Your task to perform on an android device: Search for the best Mexican restaurants Image 0: 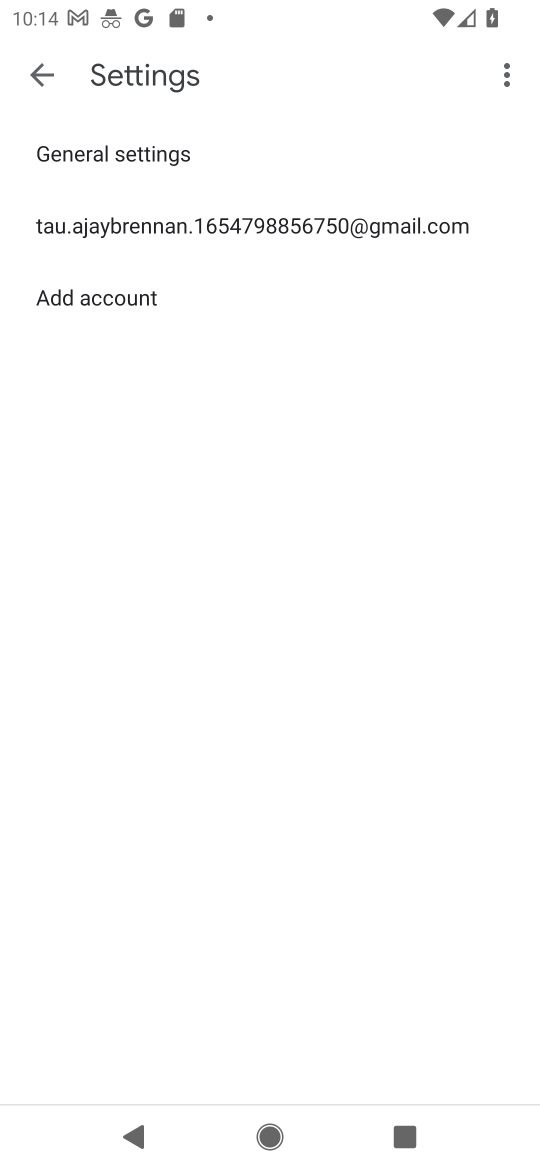
Step 0: press home button
Your task to perform on an android device: Search for the best Mexican restaurants Image 1: 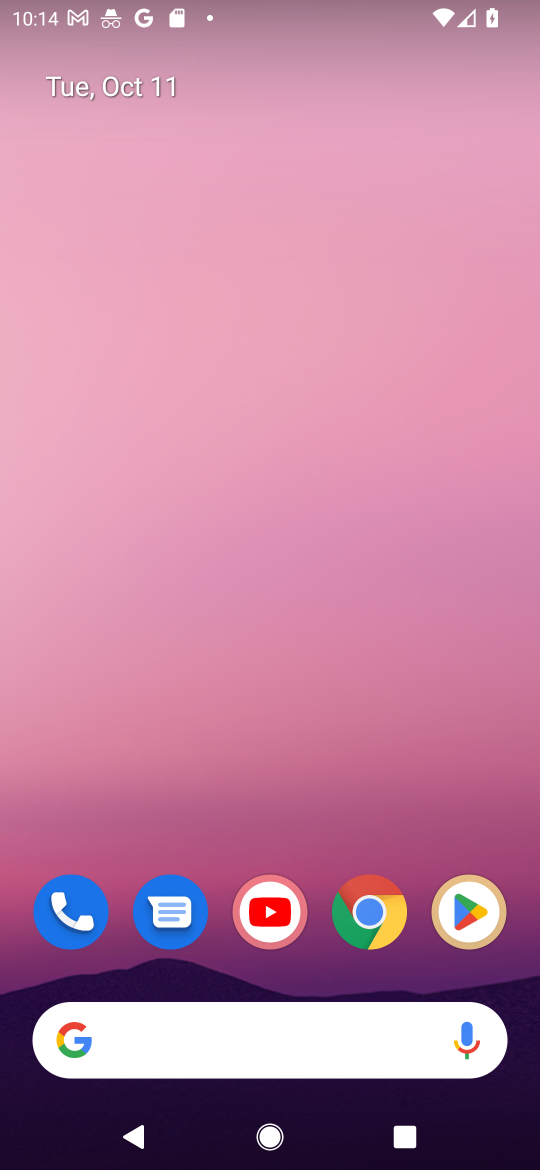
Step 1: click (366, 913)
Your task to perform on an android device: Search for the best Mexican restaurants Image 2: 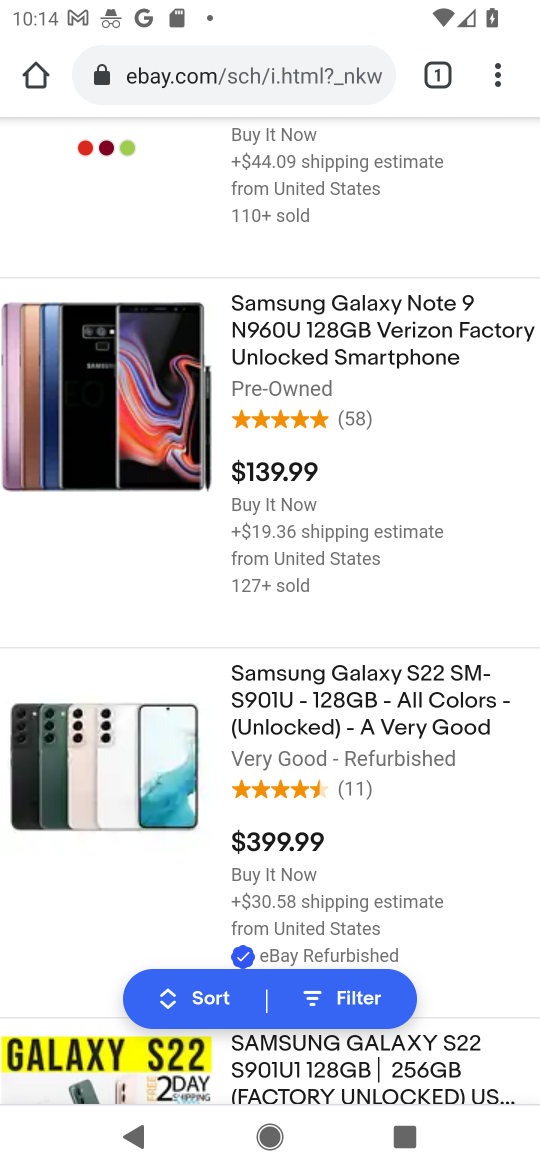
Step 2: click (211, 49)
Your task to perform on an android device: Search for the best Mexican restaurants Image 3: 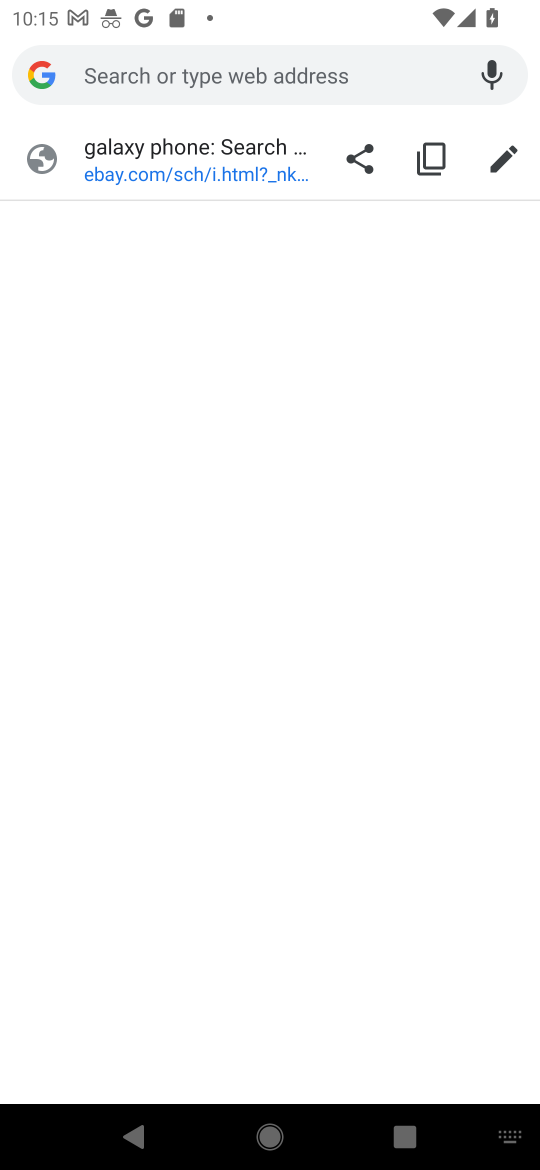
Step 3: type "best Mexican restaurants"
Your task to perform on an android device: Search for the best Mexican restaurants Image 4: 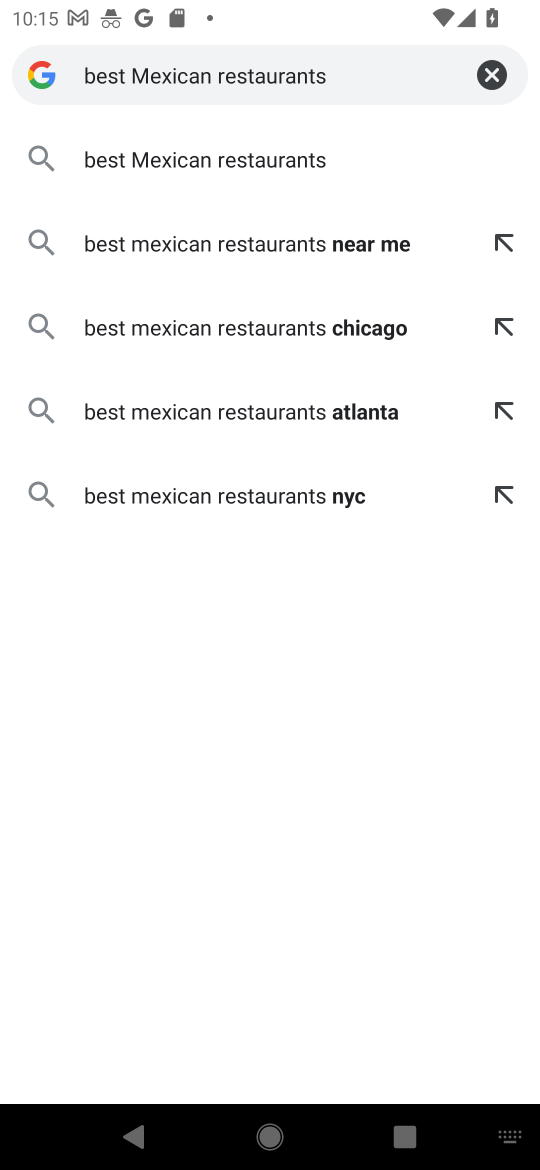
Step 4: click (172, 148)
Your task to perform on an android device: Search for the best Mexican restaurants Image 5: 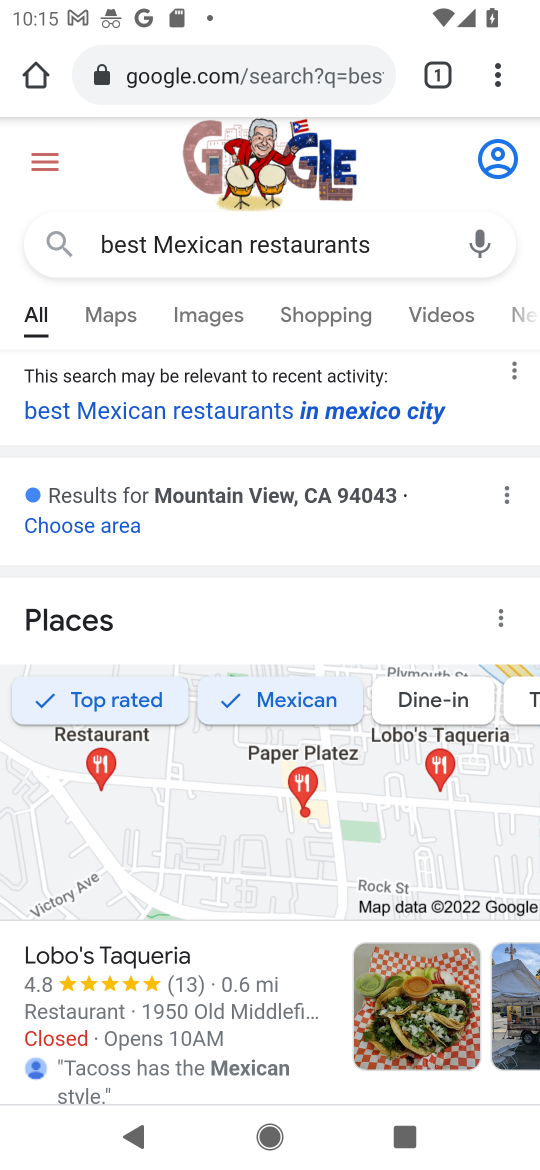
Step 5: drag from (243, 959) to (223, 303)
Your task to perform on an android device: Search for the best Mexican restaurants Image 6: 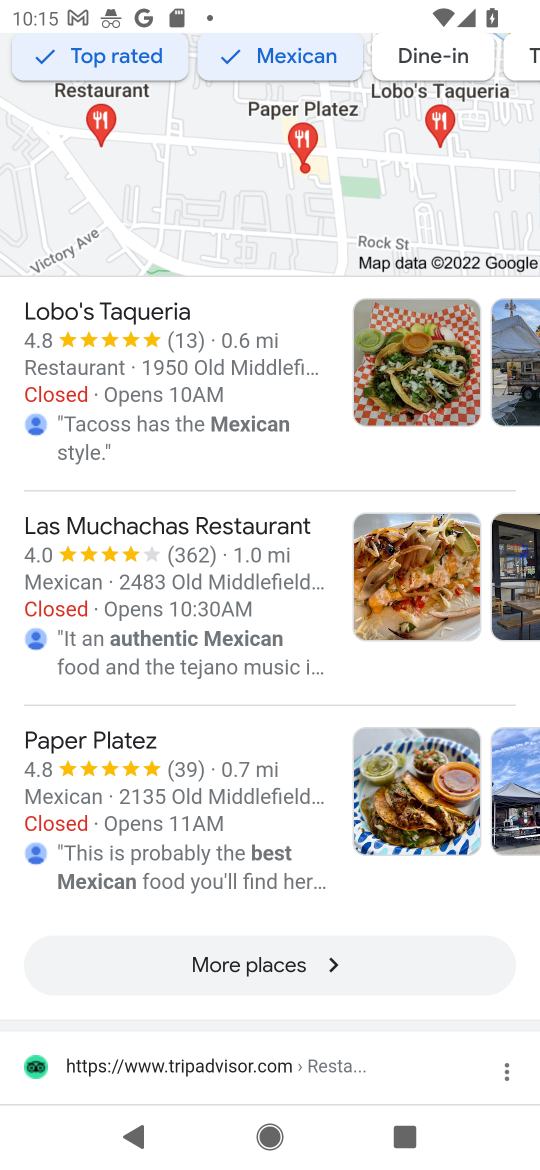
Step 6: click (145, 320)
Your task to perform on an android device: Search for the best Mexican restaurants Image 7: 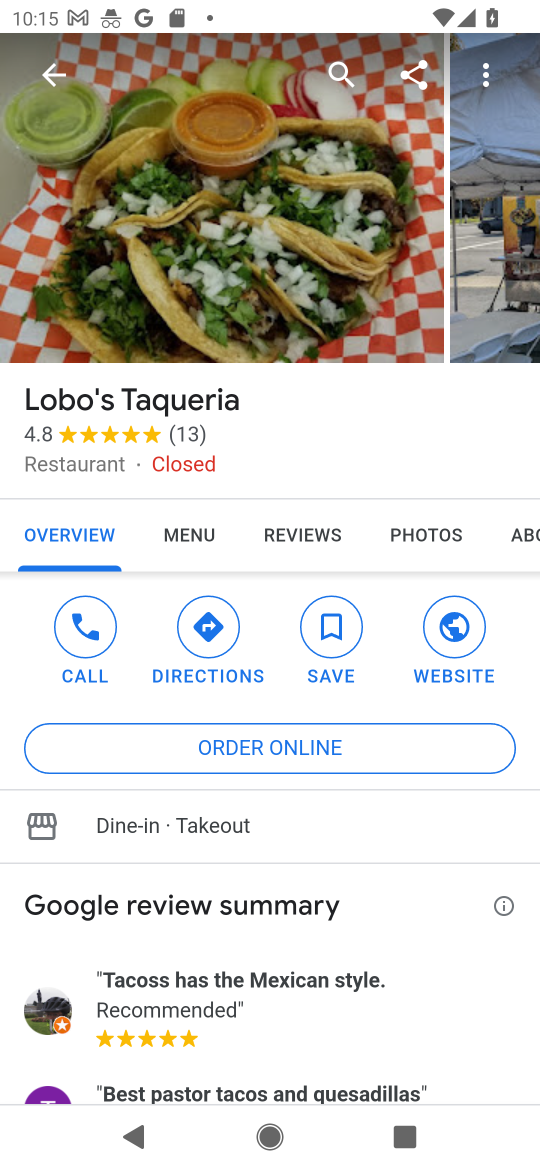
Step 7: task complete